Your task to perform on an android device: change the clock display to digital Image 0: 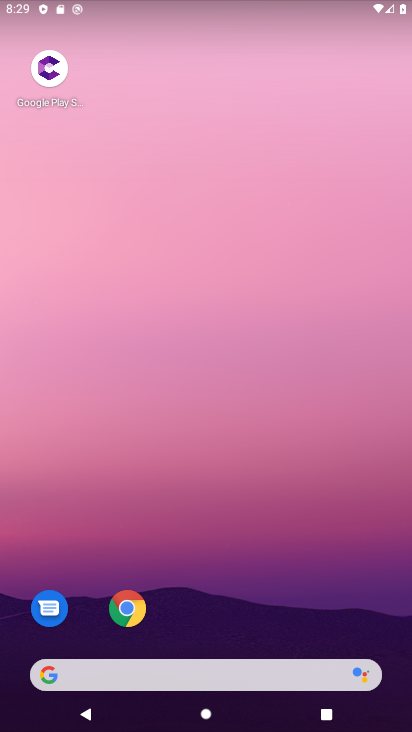
Step 0: press home button
Your task to perform on an android device: change the clock display to digital Image 1: 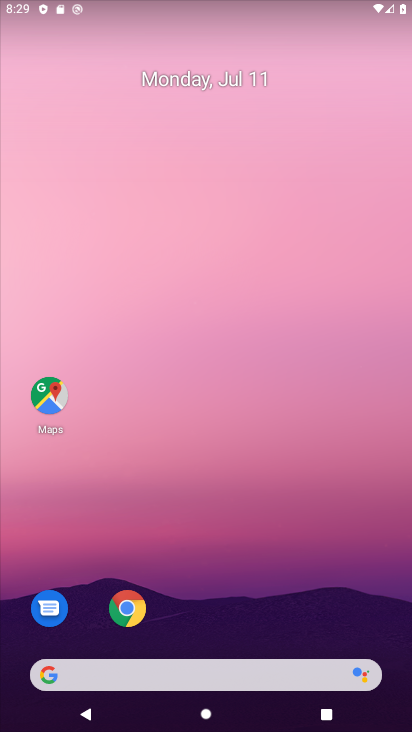
Step 1: drag from (183, 437) to (175, 362)
Your task to perform on an android device: change the clock display to digital Image 2: 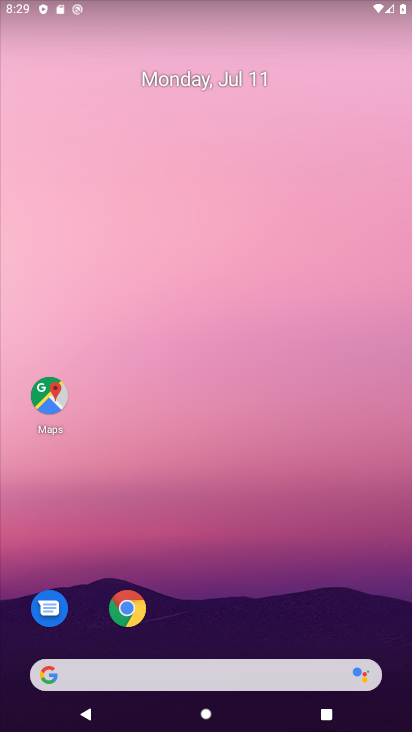
Step 2: drag from (193, 334) to (238, 23)
Your task to perform on an android device: change the clock display to digital Image 3: 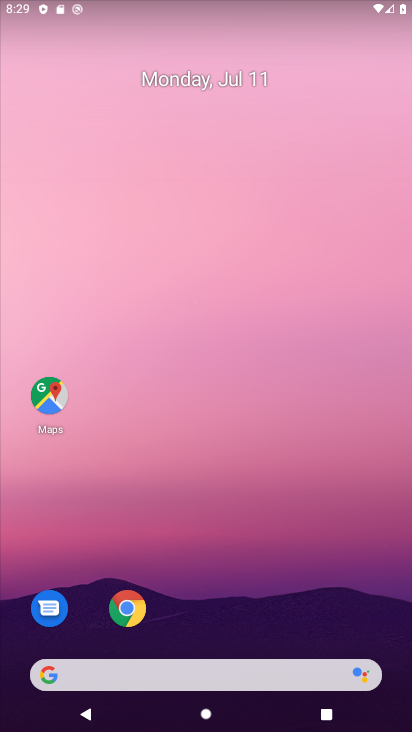
Step 3: drag from (197, 370) to (262, 42)
Your task to perform on an android device: change the clock display to digital Image 4: 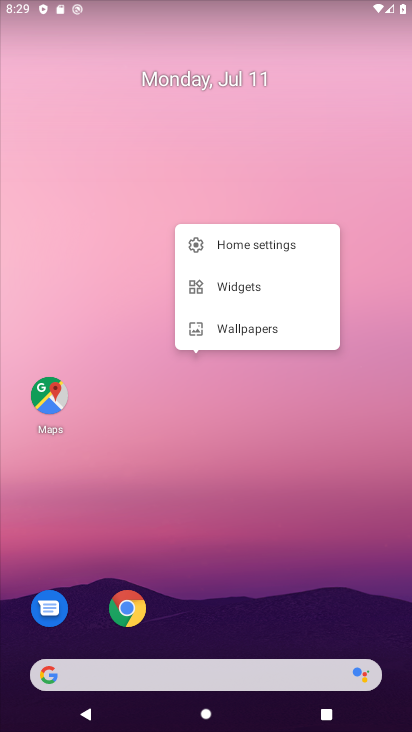
Step 4: click (215, 619)
Your task to perform on an android device: change the clock display to digital Image 5: 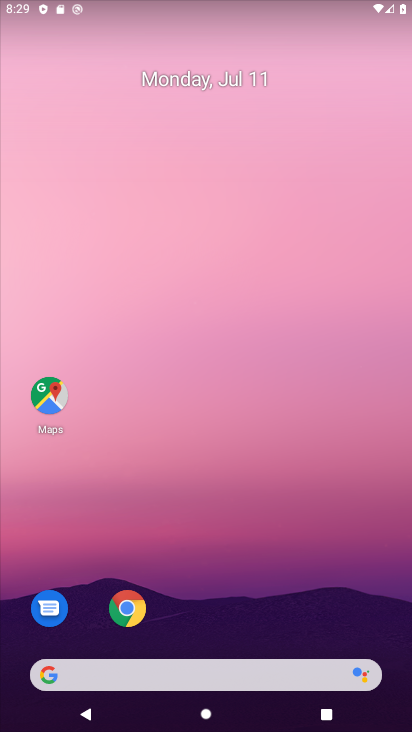
Step 5: drag from (215, 342) to (298, 122)
Your task to perform on an android device: change the clock display to digital Image 6: 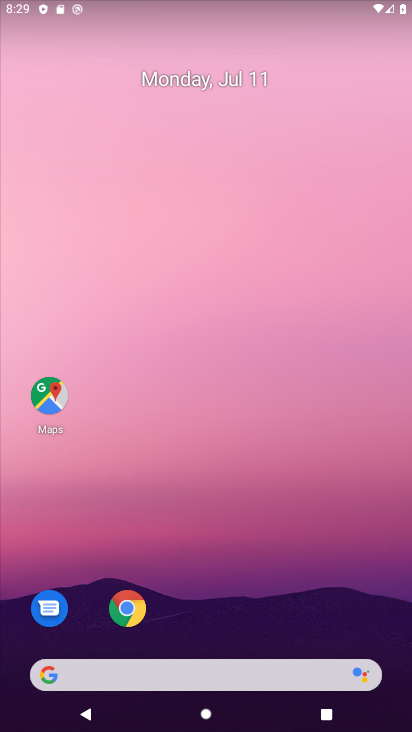
Step 6: click (244, 89)
Your task to perform on an android device: change the clock display to digital Image 7: 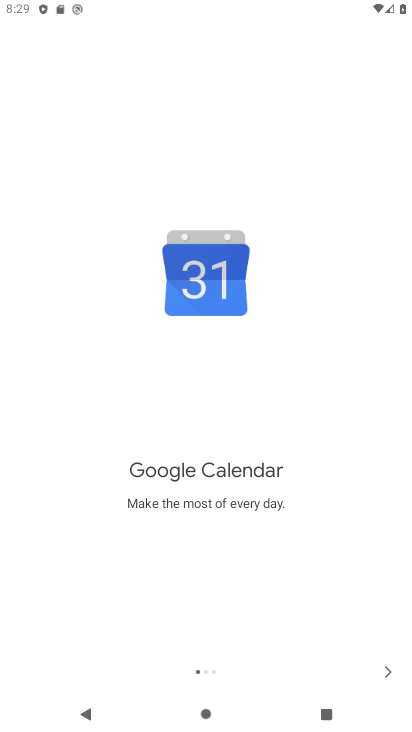
Step 7: press home button
Your task to perform on an android device: change the clock display to digital Image 8: 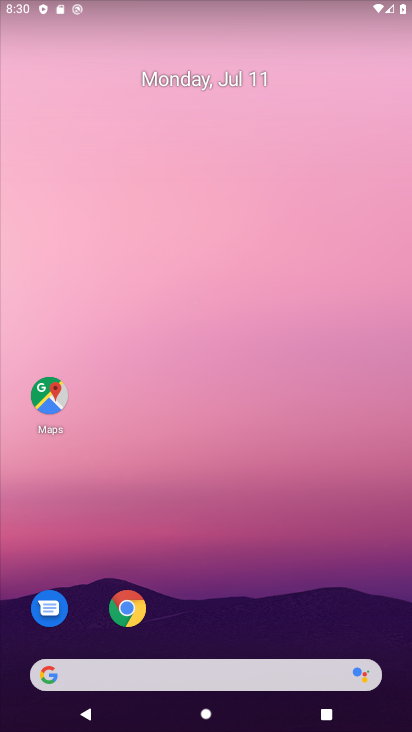
Step 8: click (241, 593)
Your task to perform on an android device: change the clock display to digital Image 9: 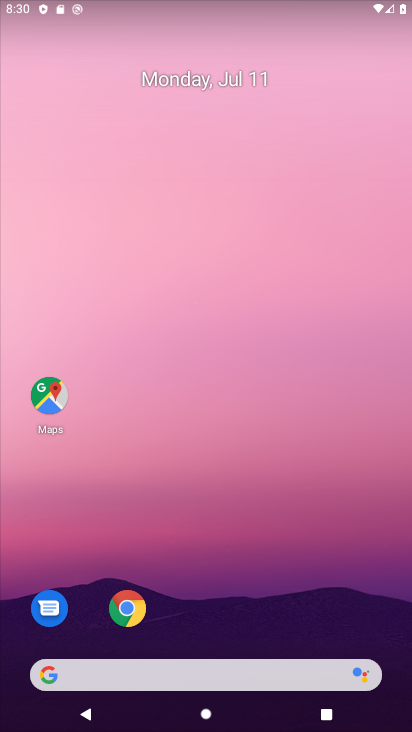
Step 9: drag from (226, 426) to (220, 53)
Your task to perform on an android device: change the clock display to digital Image 10: 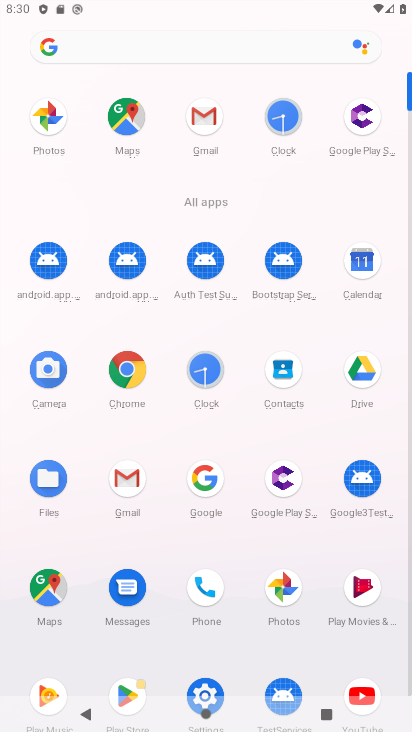
Step 10: click (210, 379)
Your task to perform on an android device: change the clock display to digital Image 11: 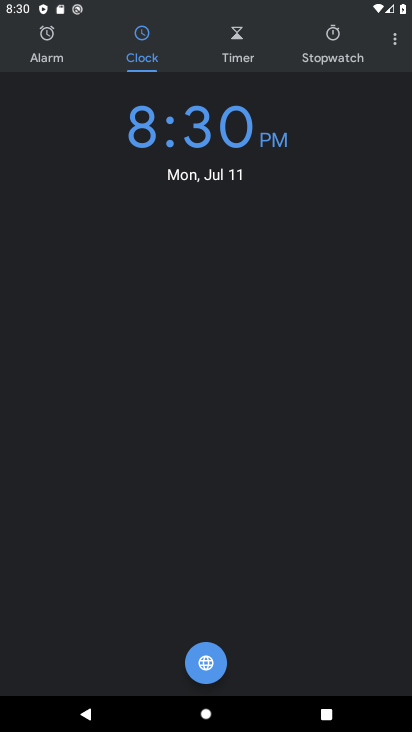
Step 11: click (391, 41)
Your task to perform on an android device: change the clock display to digital Image 12: 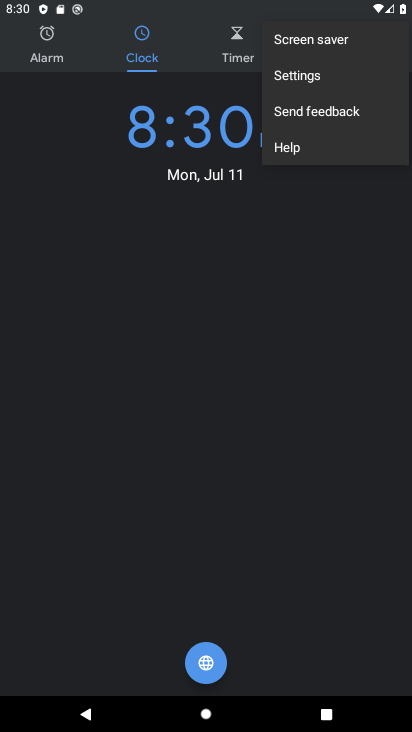
Step 12: click (309, 71)
Your task to perform on an android device: change the clock display to digital Image 13: 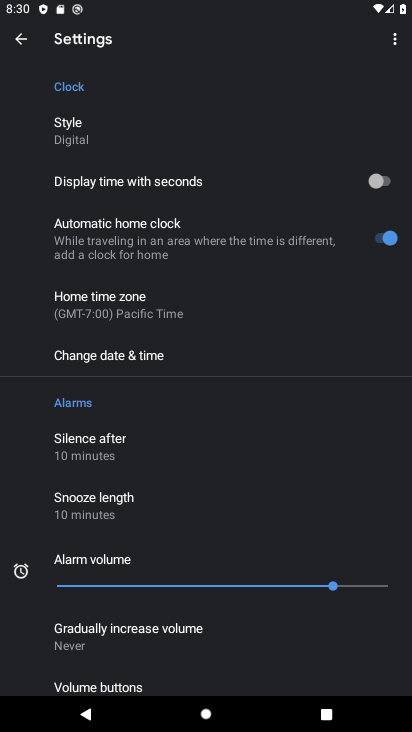
Step 13: task complete